Your task to perform on an android device: set default search engine in the chrome app Image 0: 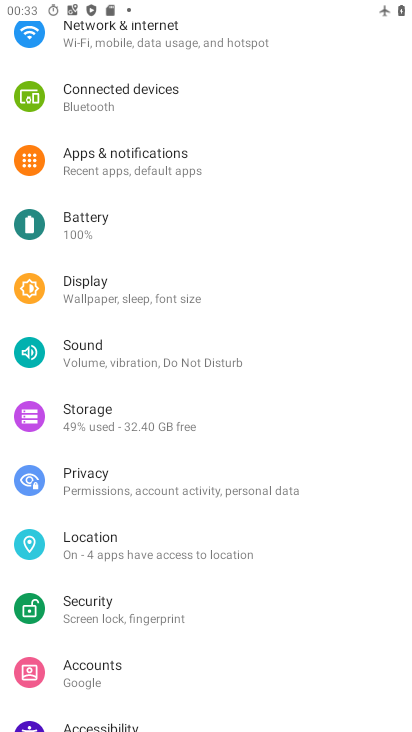
Step 0: press home button
Your task to perform on an android device: set default search engine in the chrome app Image 1: 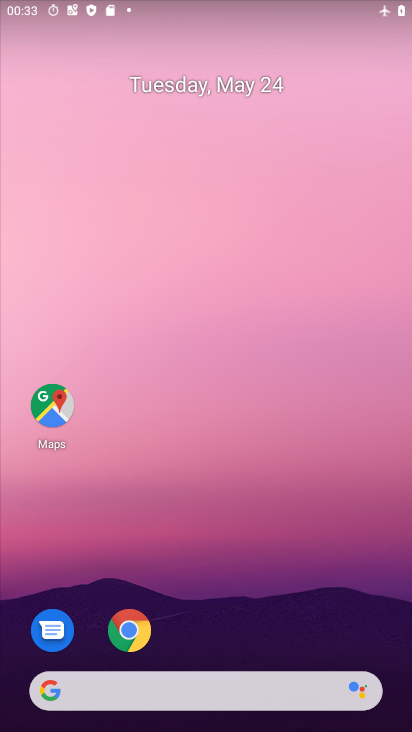
Step 1: click (142, 629)
Your task to perform on an android device: set default search engine in the chrome app Image 2: 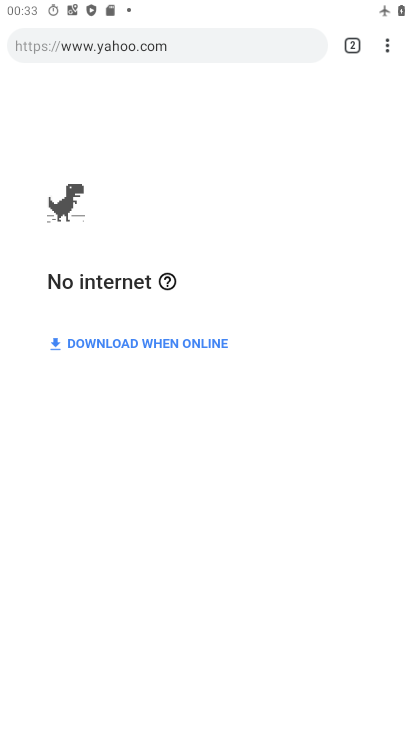
Step 2: click (389, 47)
Your task to perform on an android device: set default search engine in the chrome app Image 3: 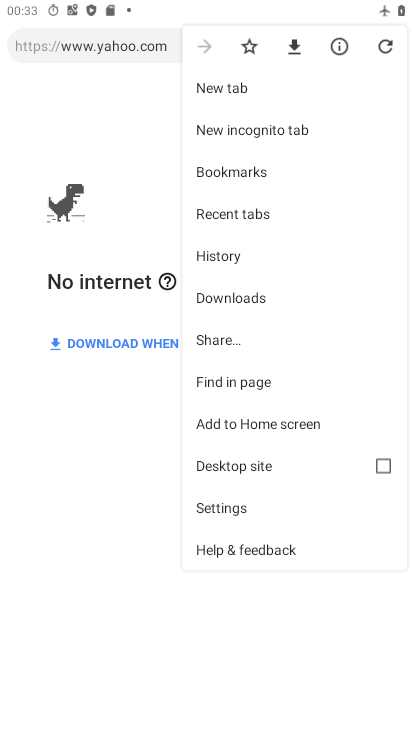
Step 3: click (214, 512)
Your task to perform on an android device: set default search engine in the chrome app Image 4: 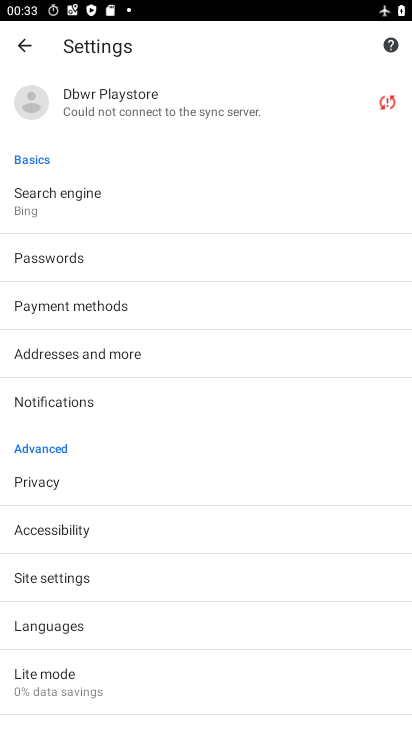
Step 4: click (44, 190)
Your task to perform on an android device: set default search engine in the chrome app Image 5: 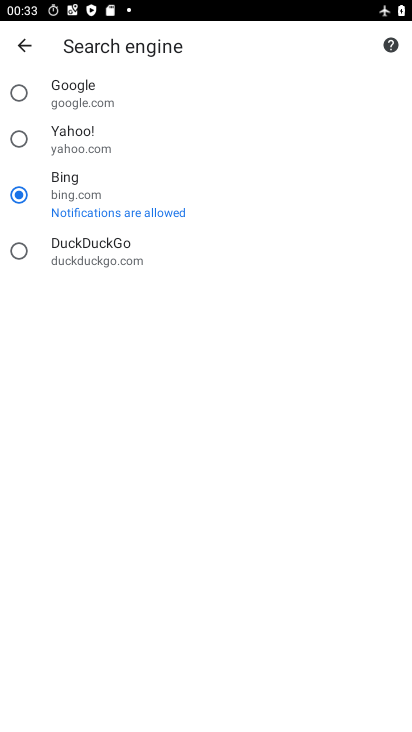
Step 5: click (19, 130)
Your task to perform on an android device: set default search engine in the chrome app Image 6: 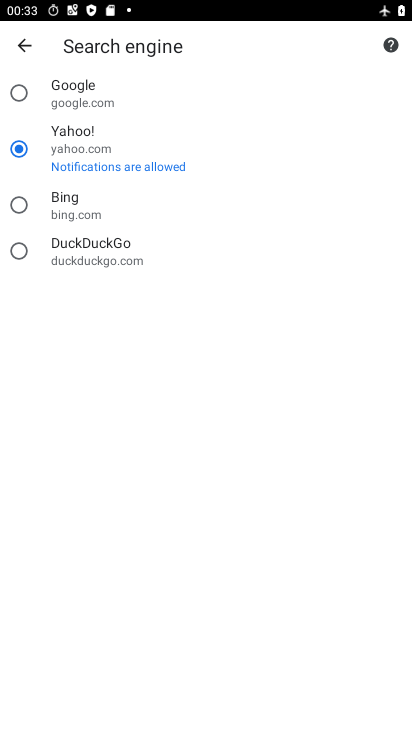
Step 6: task complete